Your task to perform on an android device: Is it going to rain today? Image 0: 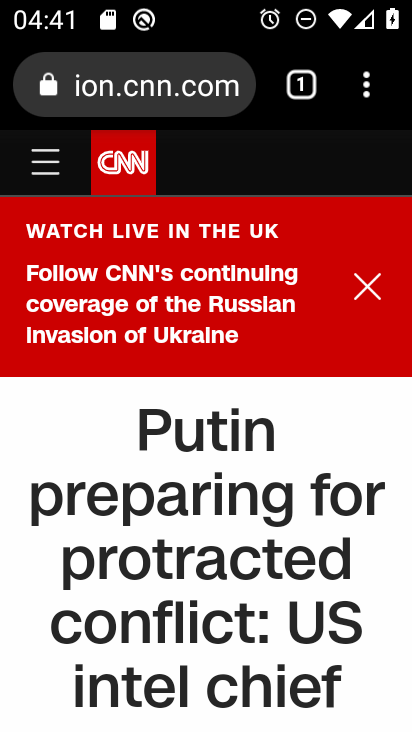
Step 0: press home button
Your task to perform on an android device: Is it going to rain today? Image 1: 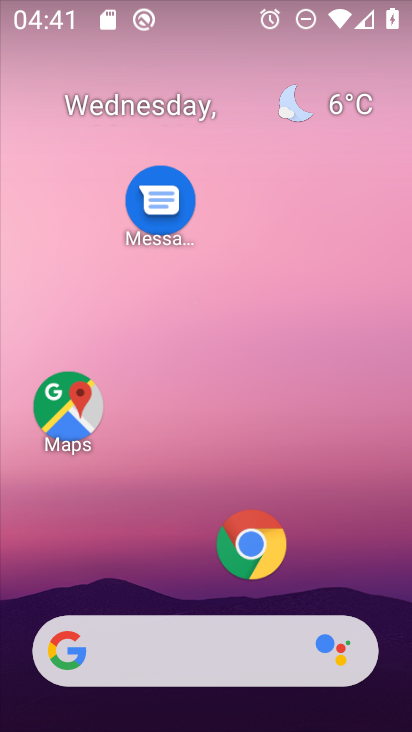
Step 1: click (177, 658)
Your task to perform on an android device: Is it going to rain today? Image 2: 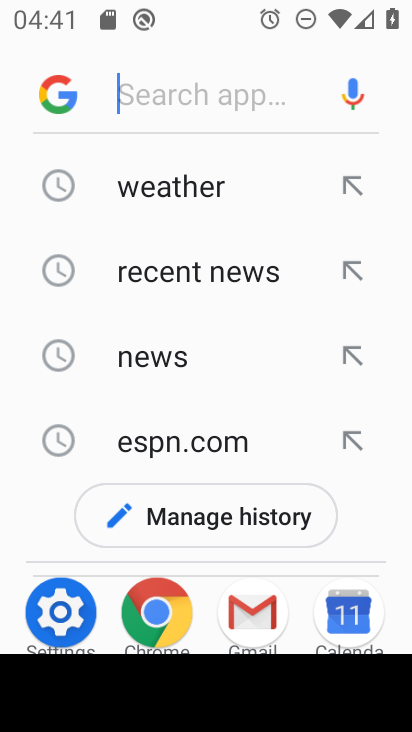
Step 2: type "is it going to rain today"
Your task to perform on an android device: Is it going to rain today? Image 3: 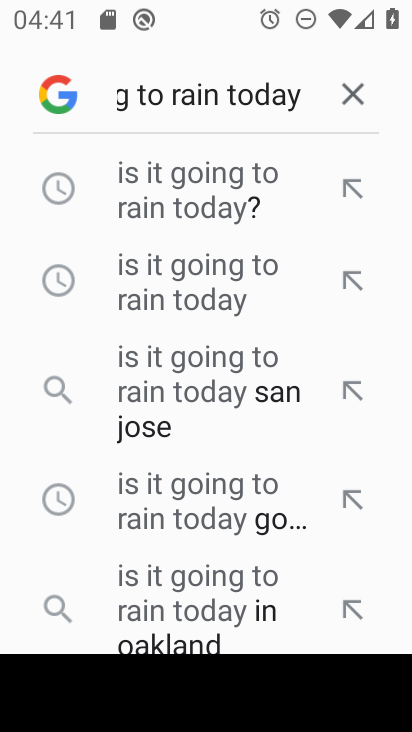
Step 3: click (242, 162)
Your task to perform on an android device: Is it going to rain today? Image 4: 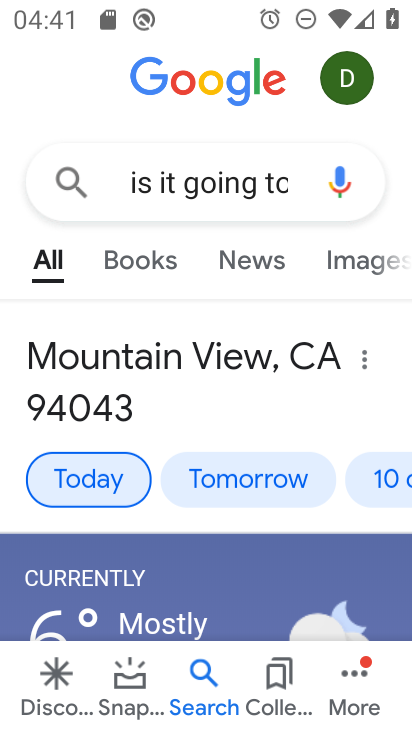
Step 4: task complete